Your task to perform on an android device: Open maps Image 0: 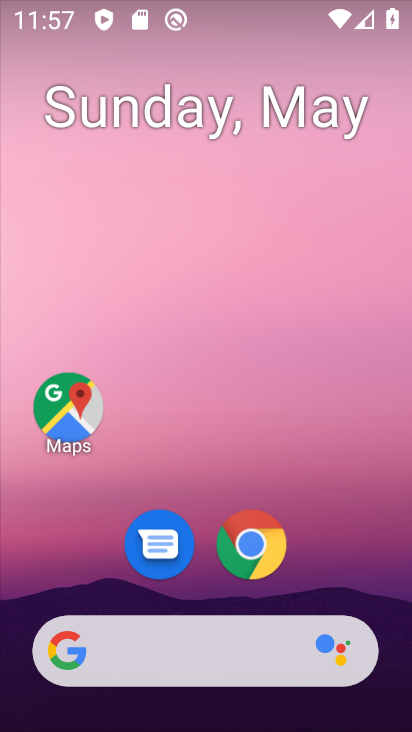
Step 0: drag from (317, 616) to (255, 13)
Your task to perform on an android device: Open maps Image 1: 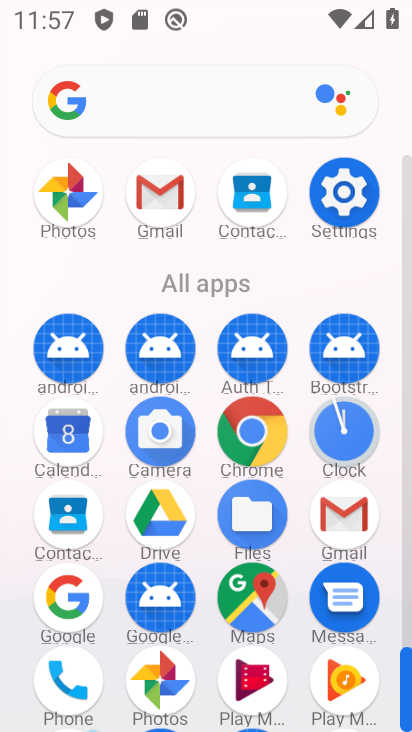
Step 1: click (249, 609)
Your task to perform on an android device: Open maps Image 2: 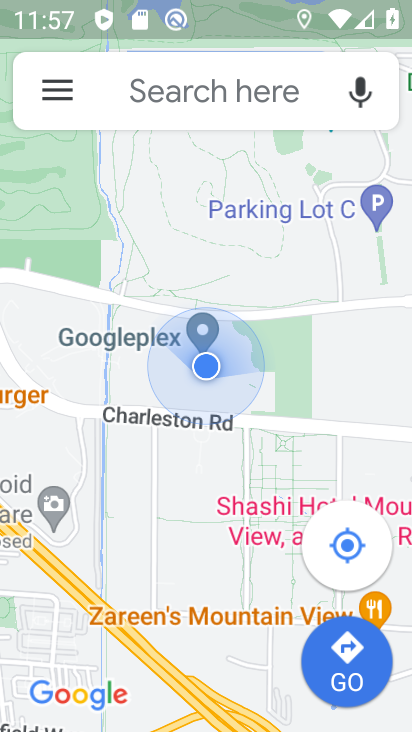
Step 2: task complete